Your task to perform on an android device: Turn on the flashlight Image 0: 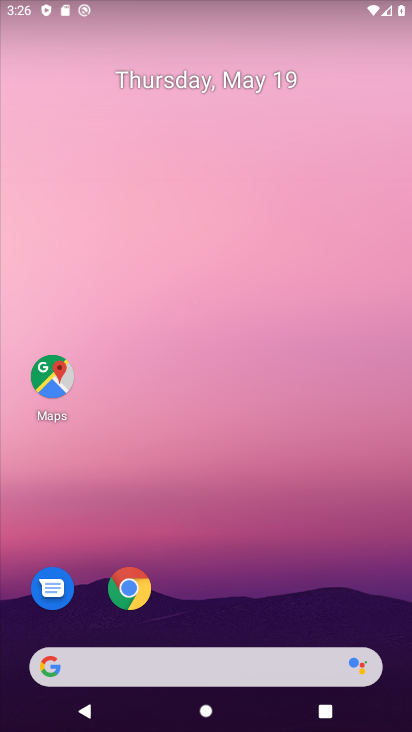
Step 0: click (320, 547)
Your task to perform on an android device: Turn on the flashlight Image 1: 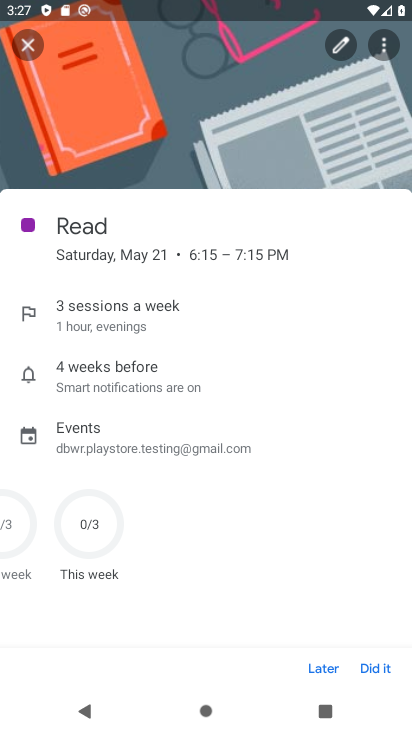
Step 1: press home button
Your task to perform on an android device: Turn on the flashlight Image 2: 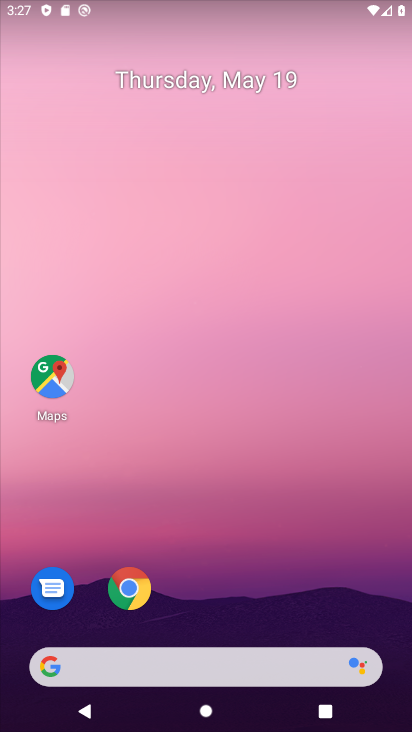
Step 2: drag from (225, 296) to (237, 248)
Your task to perform on an android device: Turn on the flashlight Image 3: 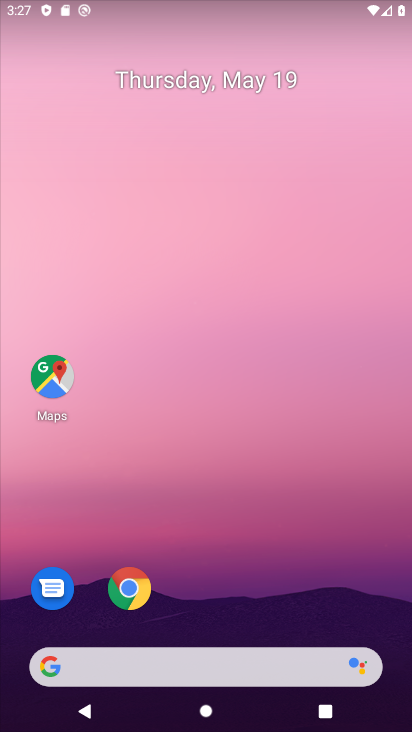
Step 3: drag from (212, 606) to (227, 222)
Your task to perform on an android device: Turn on the flashlight Image 4: 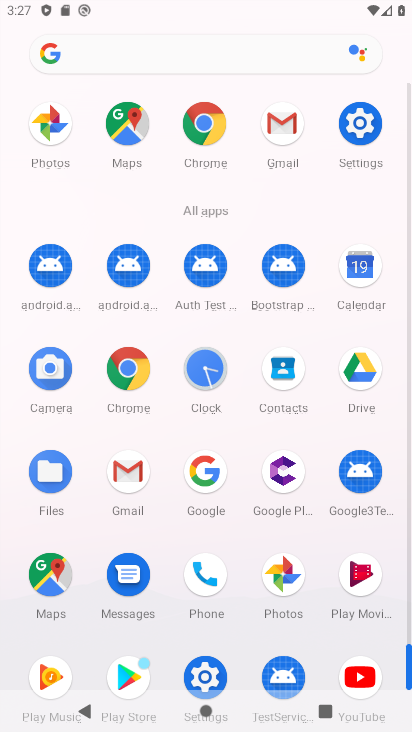
Step 4: click (375, 150)
Your task to perform on an android device: Turn on the flashlight Image 5: 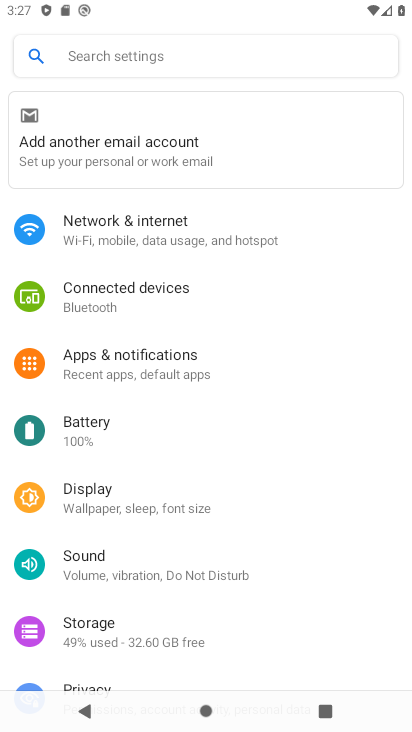
Step 5: click (185, 60)
Your task to perform on an android device: Turn on the flashlight Image 6: 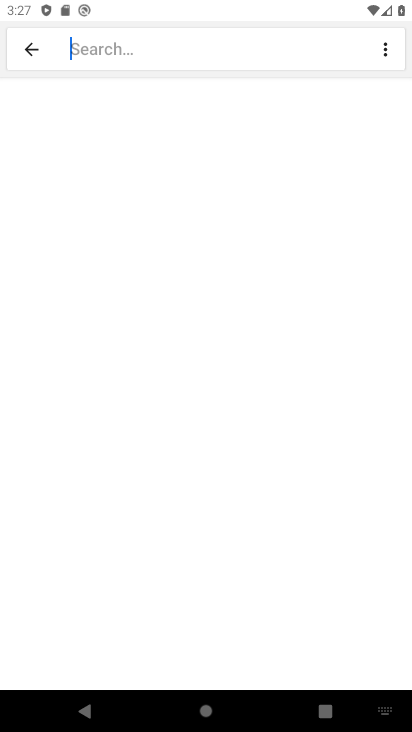
Step 6: type "flashlight"
Your task to perform on an android device: Turn on the flashlight Image 7: 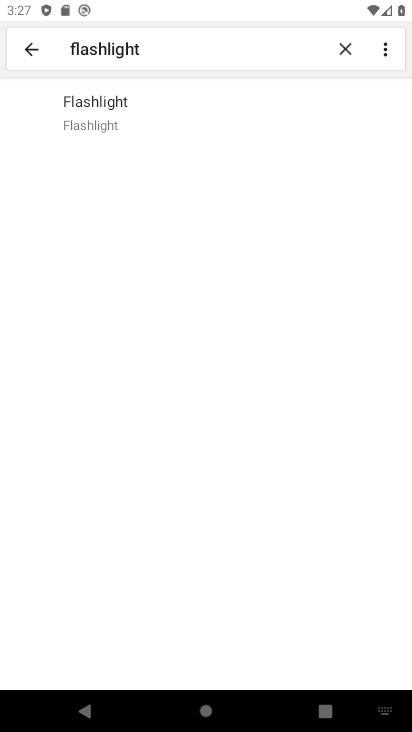
Step 7: click (96, 112)
Your task to perform on an android device: Turn on the flashlight Image 8: 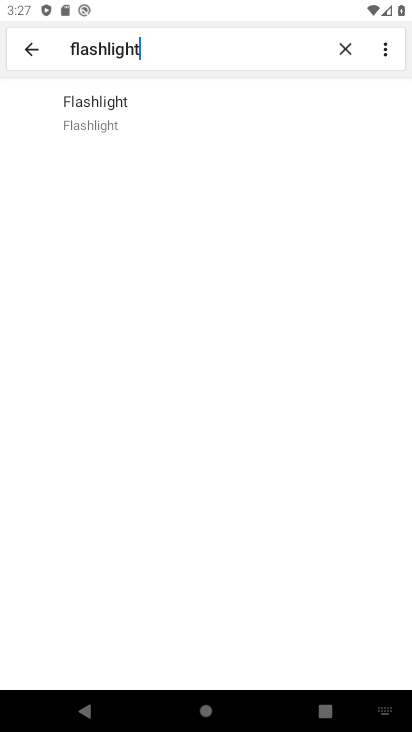
Step 8: click (98, 112)
Your task to perform on an android device: Turn on the flashlight Image 9: 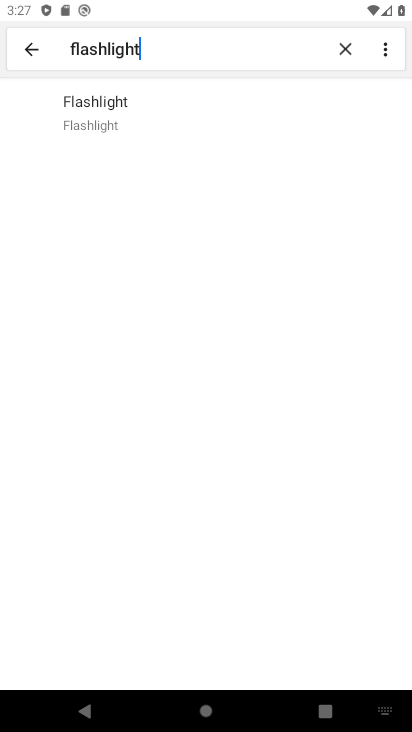
Step 9: task complete